Your task to perform on an android device: Go to battery settings Image 0: 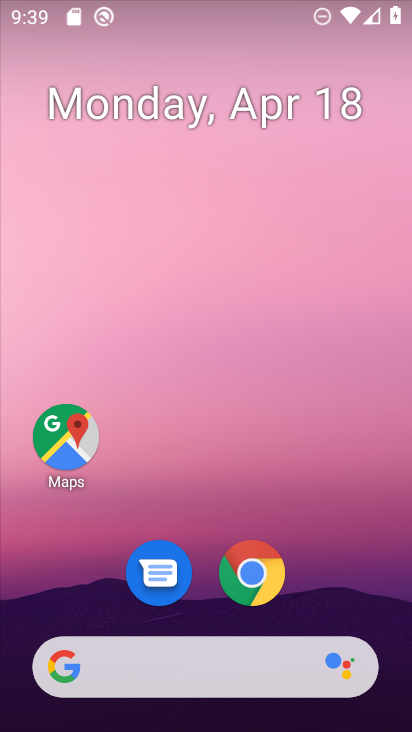
Step 0: drag from (351, 564) to (174, 59)
Your task to perform on an android device: Go to battery settings Image 1: 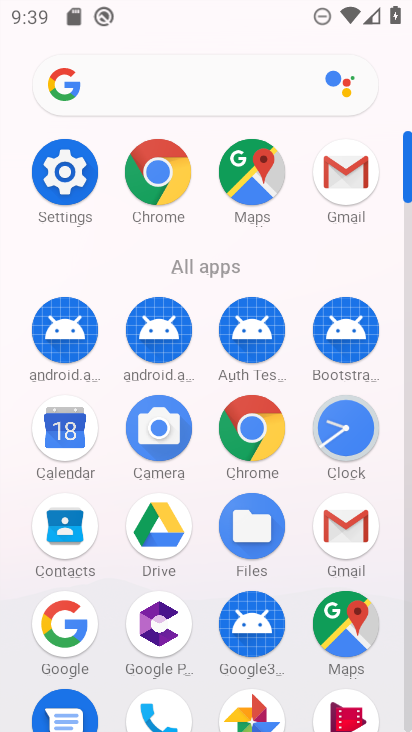
Step 1: click (40, 166)
Your task to perform on an android device: Go to battery settings Image 2: 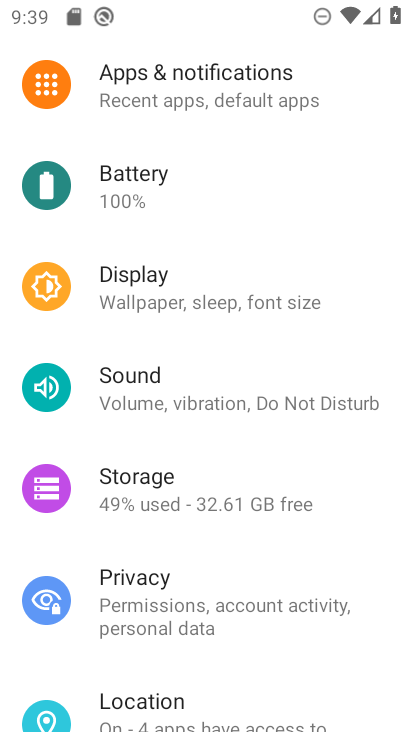
Step 2: click (169, 206)
Your task to perform on an android device: Go to battery settings Image 3: 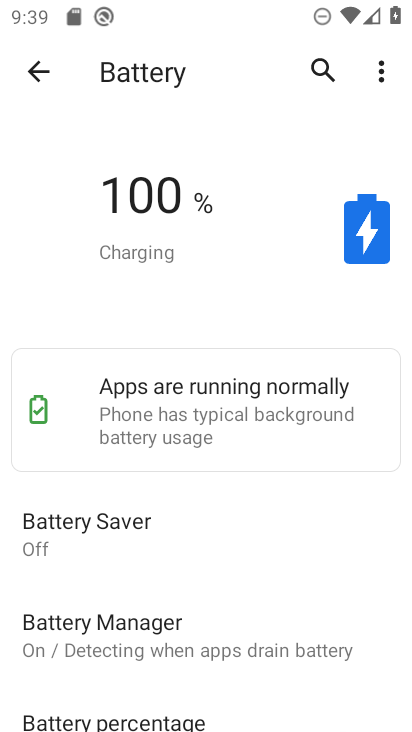
Step 3: task complete